Your task to perform on an android device: change keyboard looks Image 0: 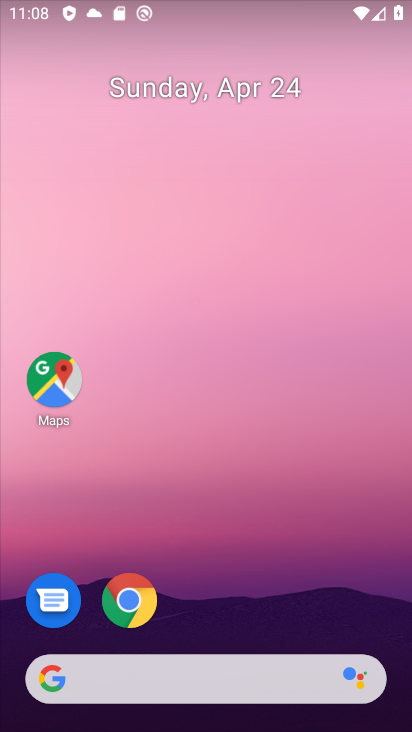
Step 0: drag from (263, 612) to (122, 6)
Your task to perform on an android device: change keyboard looks Image 1: 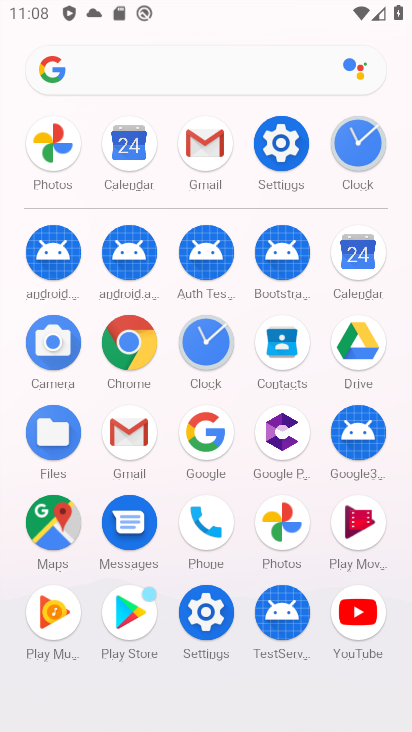
Step 1: click (281, 136)
Your task to perform on an android device: change keyboard looks Image 2: 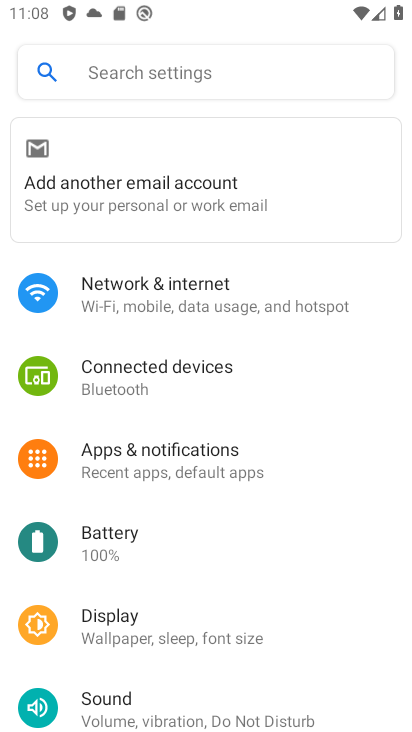
Step 2: drag from (216, 551) to (121, 123)
Your task to perform on an android device: change keyboard looks Image 3: 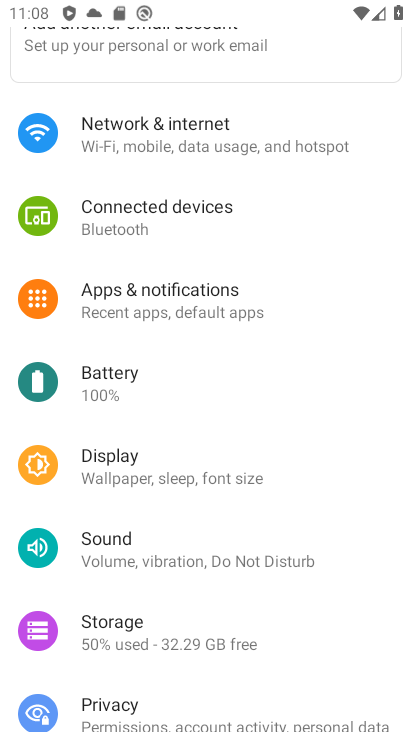
Step 3: drag from (203, 621) to (129, 146)
Your task to perform on an android device: change keyboard looks Image 4: 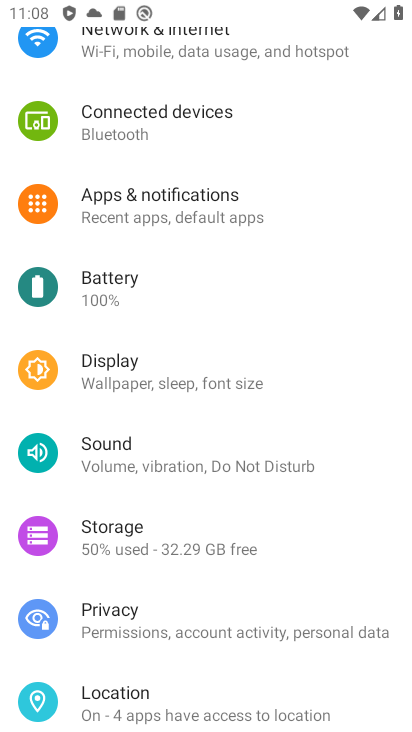
Step 4: drag from (186, 673) to (182, 201)
Your task to perform on an android device: change keyboard looks Image 5: 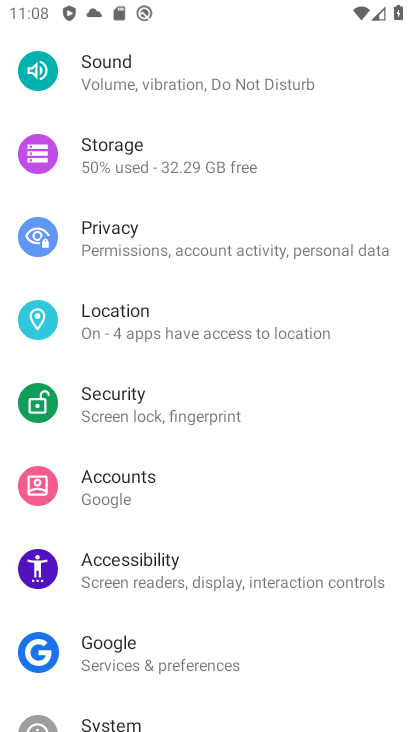
Step 5: drag from (210, 501) to (189, 141)
Your task to perform on an android device: change keyboard looks Image 6: 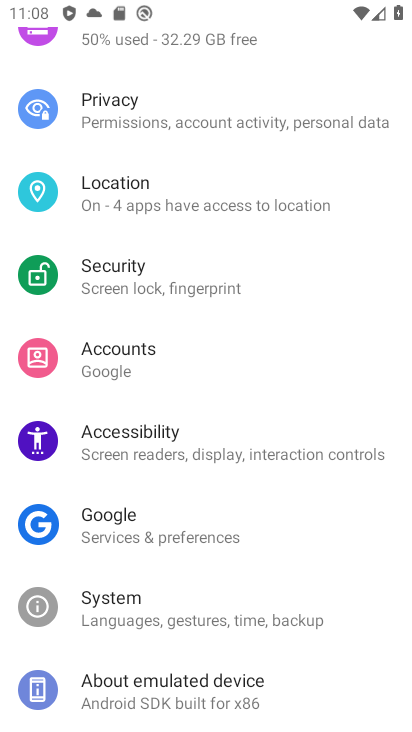
Step 6: click (112, 609)
Your task to perform on an android device: change keyboard looks Image 7: 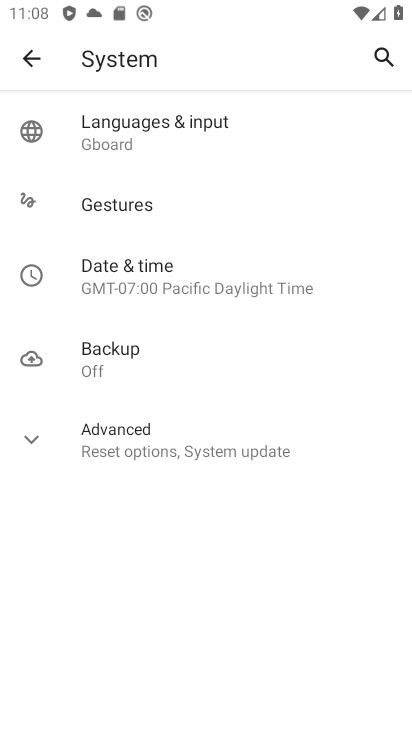
Step 7: click (113, 115)
Your task to perform on an android device: change keyboard looks Image 8: 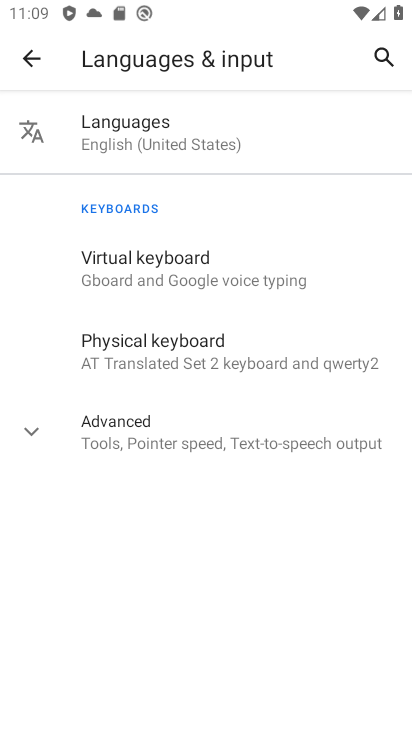
Step 8: click (110, 258)
Your task to perform on an android device: change keyboard looks Image 9: 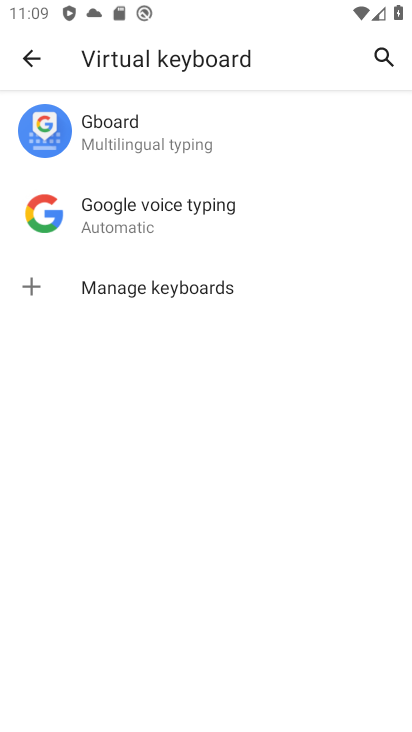
Step 9: click (108, 122)
Your task to perform on an android device: change keyboard looks Image 10: 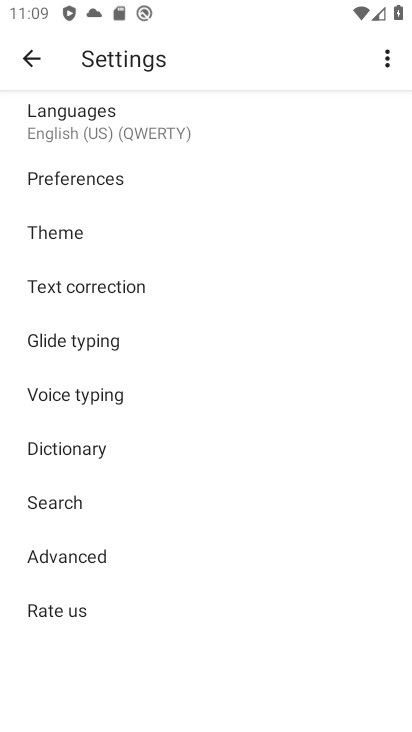
Step 10: click (58, 228)
Your task to perform on an android device: change keyboard looks Image 11: 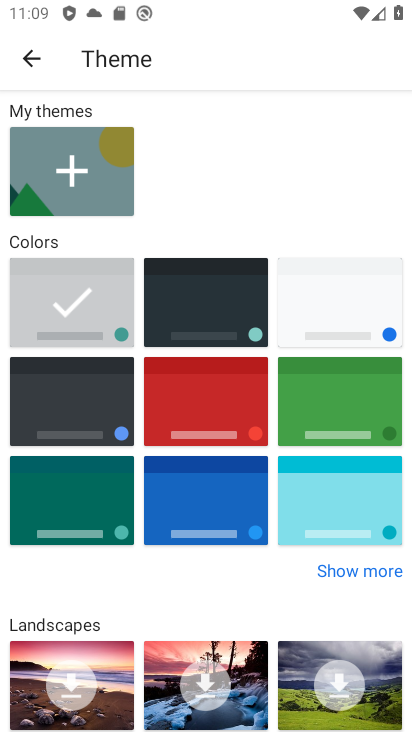
Step 11: click (189, 389)
Your task to perform on an android device: change keyboard looks Image 12: 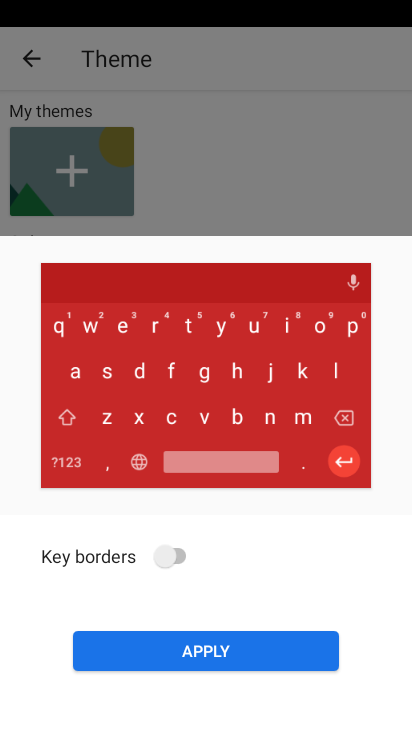
Step 12: click (208, 659)
Your task to perform on an android device: change keyboard looks Image 13: 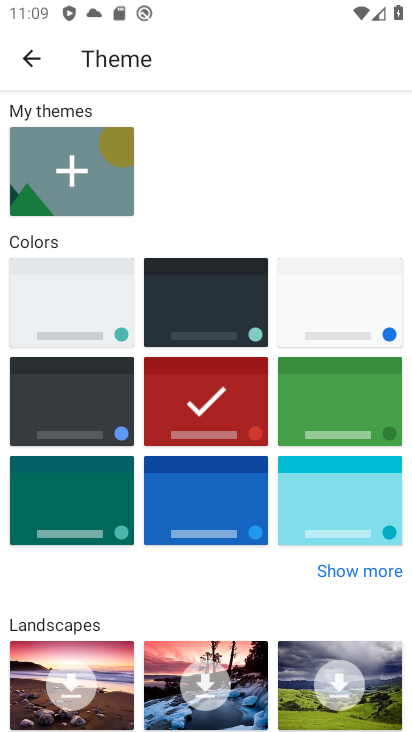
Step 13: task complete